Your task to perform on an android device: Check the weather Image 0: 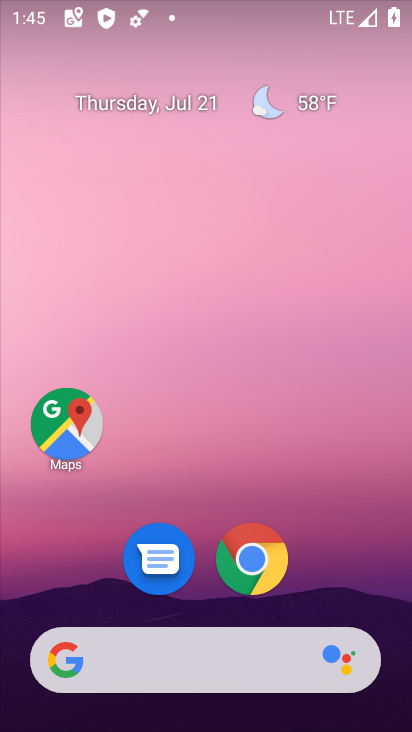
Step 0: click (171, 668)
Your task to perform on an android device: Check the weather Image 1: 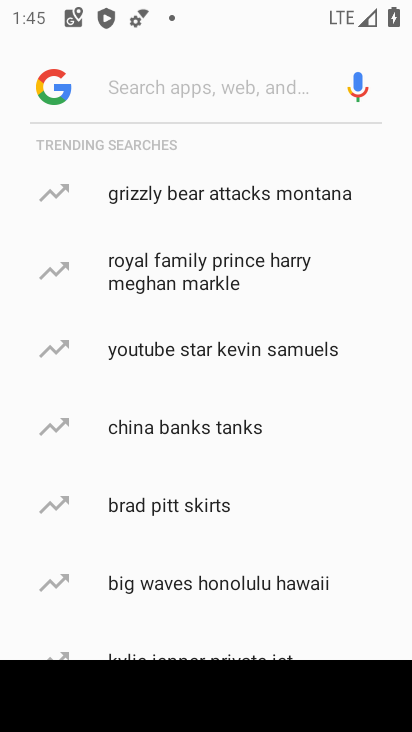
Step 1: type "weather"
Your task to perform on an android device: Check the weather Image 2: 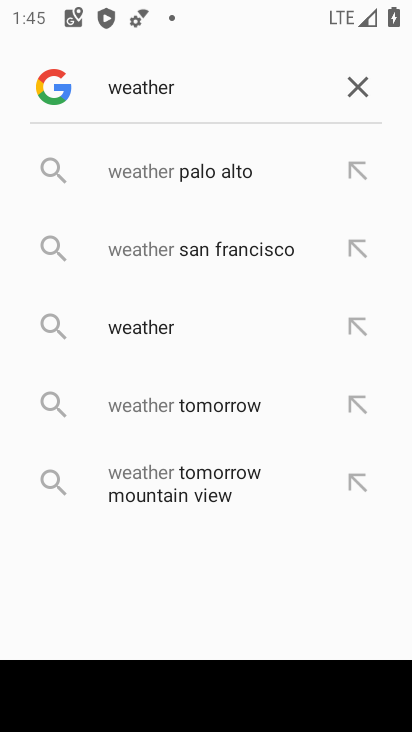
Step 2: click (291, 333)
Your task to perform on an android device: Check the weather Image 3: 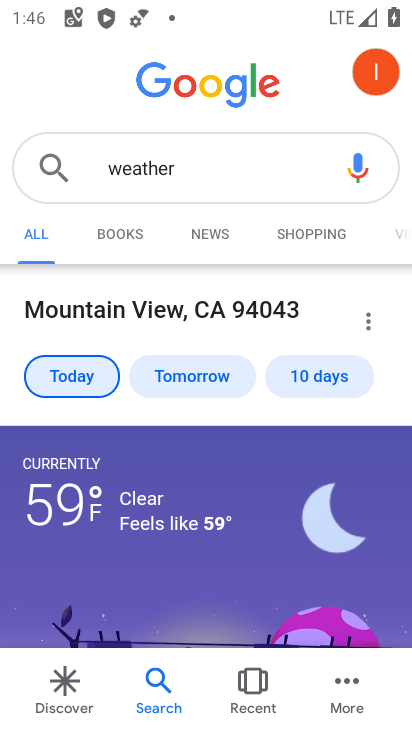
Step 3: task complete